Your task to perform on an android device: Search for vegetarian restaurants on Maps Image 0: 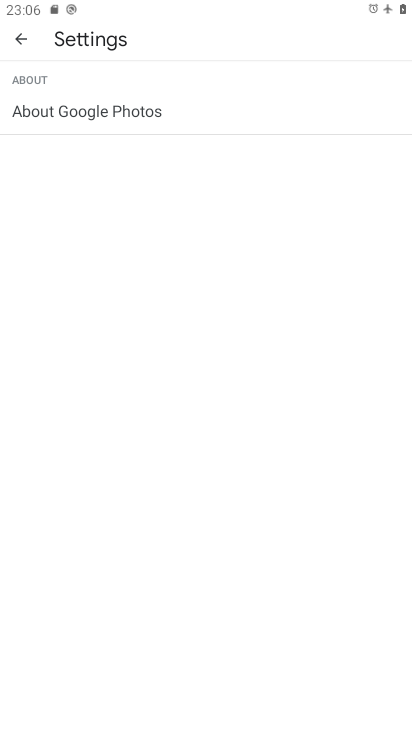
Step 0: press home button
Your task to perform on an android device: Search for vegetarian restaurants on Maps Image 1: 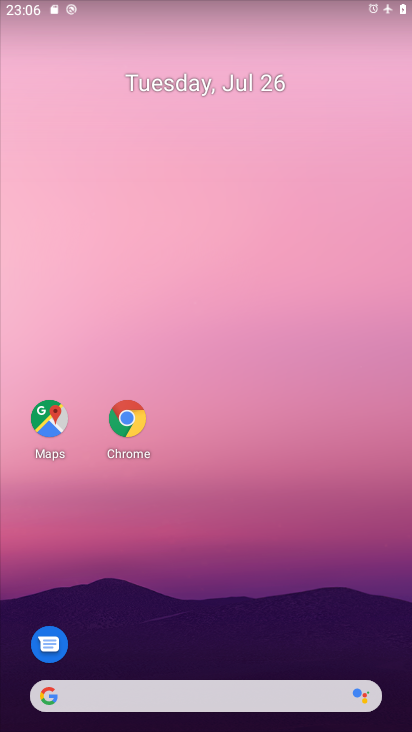
Step 1: drag from (185, 630) to (191, 173)
Your task to perform on an android device: Search for vegetarian restaurants on Maps Image 2: 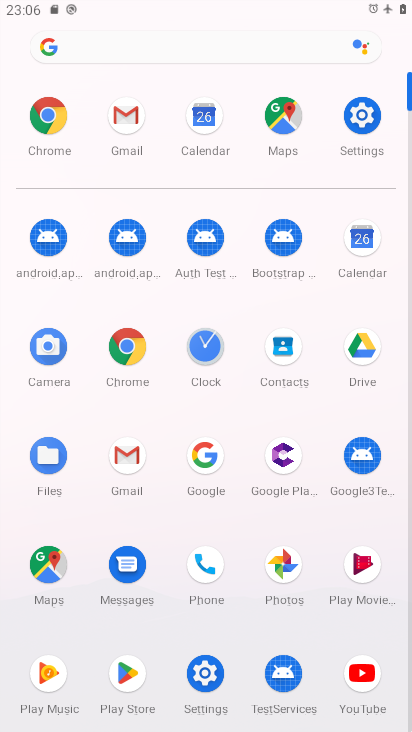
Step 2: click (60, 555)
Your task to perform on an android device: Search for vegetarian restaurants on Maps Image 3: 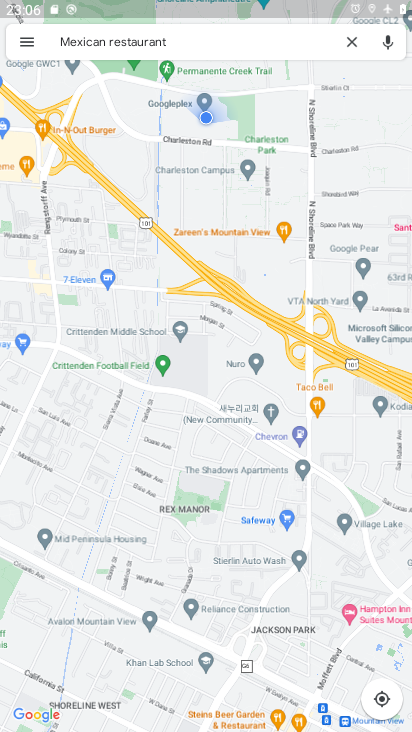
Step 3: click (354, 41)
Your task to perform on an android device: Search for vegetarian restaurants on Maps Image 4: 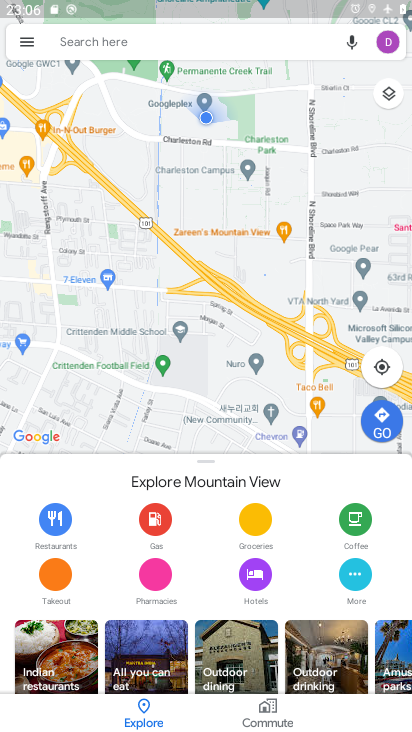
Step 4: click (174, 34)
Your task to perform on an android device: Search for vegetarian restaurants on Maps Image 5: 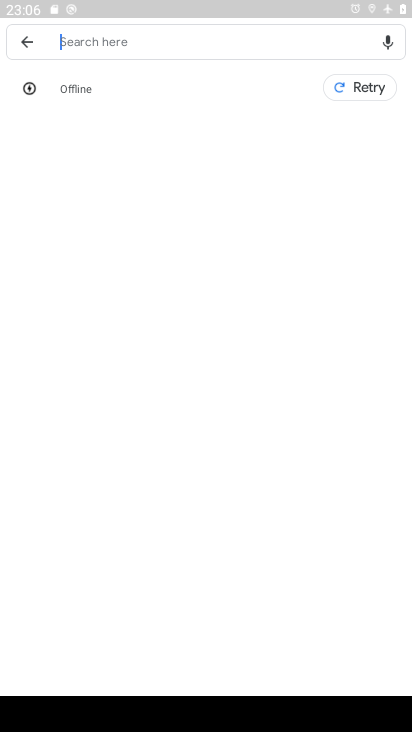
Step 5: click (118, 33)
Your task to perform on an android device: Search for vegetarian restaurants on Maps Image 6: 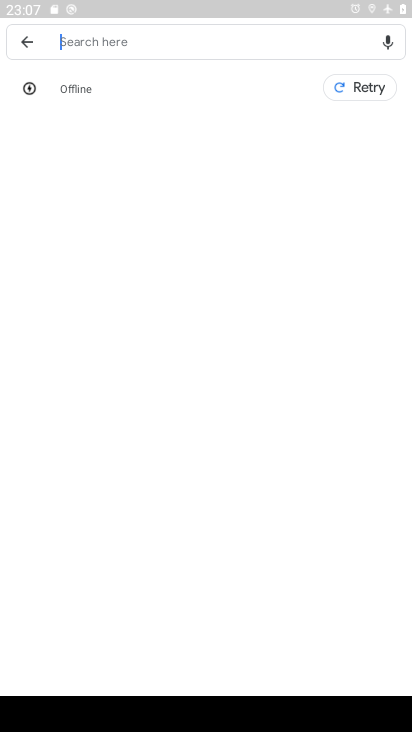
Step 6: type " vegetarian restaurants  "
Your task to perform on an android device: Search for vegetarian restaurants on Maps Image 7: 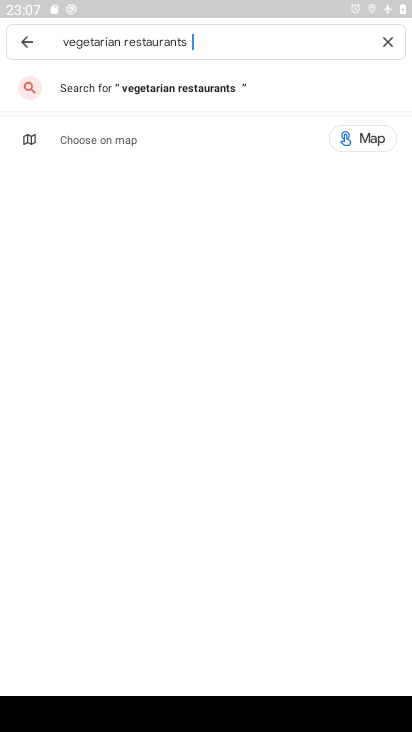
Step 7: click (195, 80)
Your task to perform on an android device: Search for vegetarian restaurants on Maps Image 8: 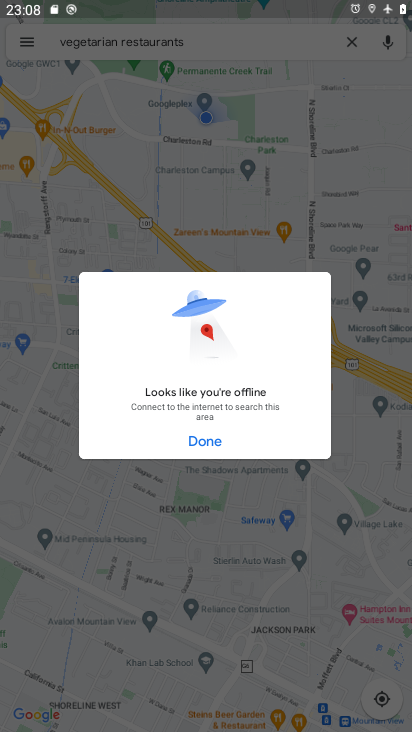
Step 8: task complete